Your task to perform on an android device: Open Google Chrome and open the bookmarks view Image 0: 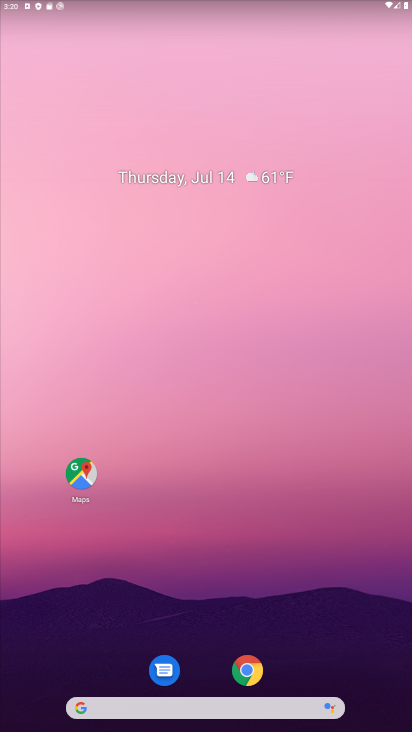
Step 0: click (181, 189)
Your task to perform on an android device: Open Google Chrome and open the bookmarks view Image 1: 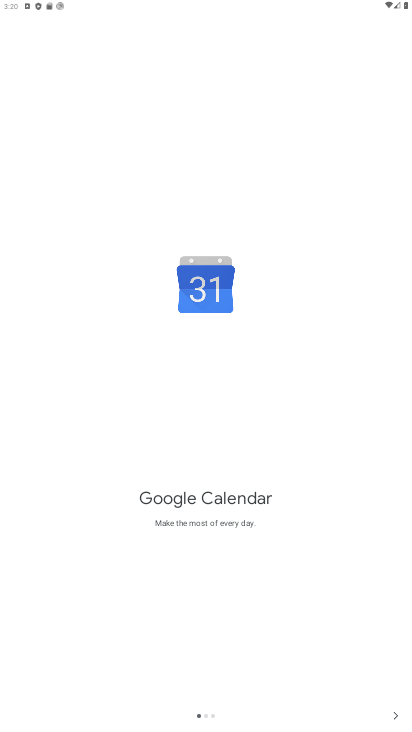
Step 1: press home button
Your task to perform on an android device: Open Google Chrome and open the bookmarks view Image 2: 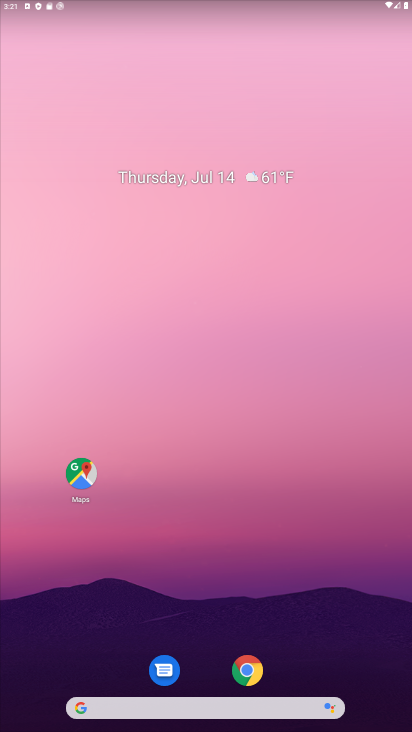
Step 2: click (239, 678)
Your task to perform on an android device: Open Google Chrome and open the bookmarks view Image 3: 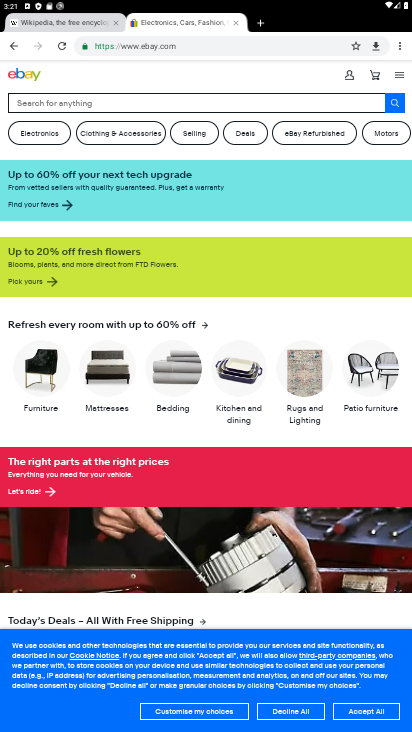
Step 3: click (392, 47)
Your task to perform on an android device: Open Google Chrome and open the bookmarks view Image 4: 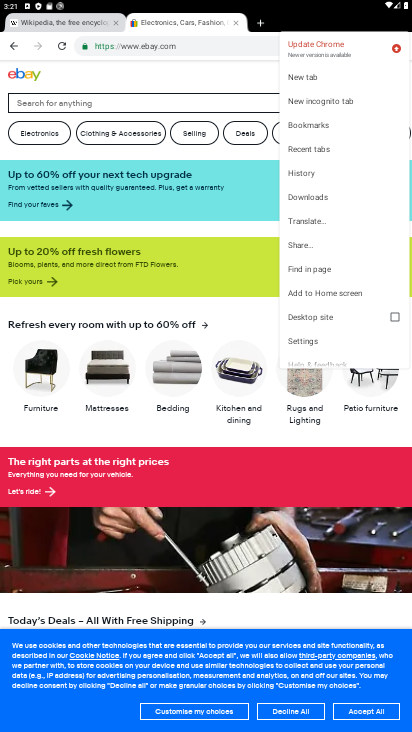
Step 4: click (325, 134)
Your task to perform on an android device: Open Google Chrome and open the bookmarks view Image 5: 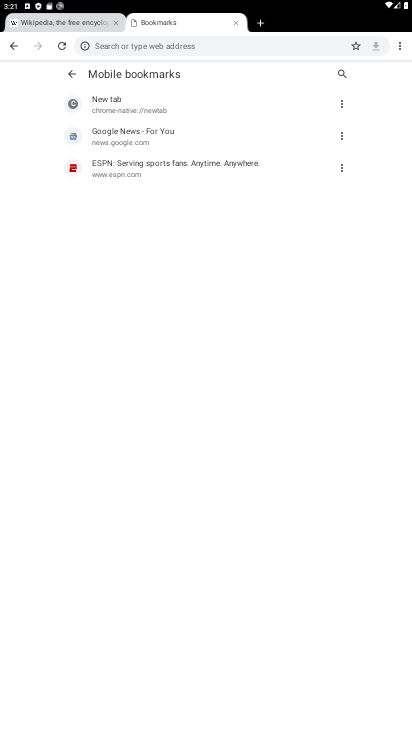
Step 5: task complete